Your task to perform on an android device: turn on data saver in the chrome app Image 0: 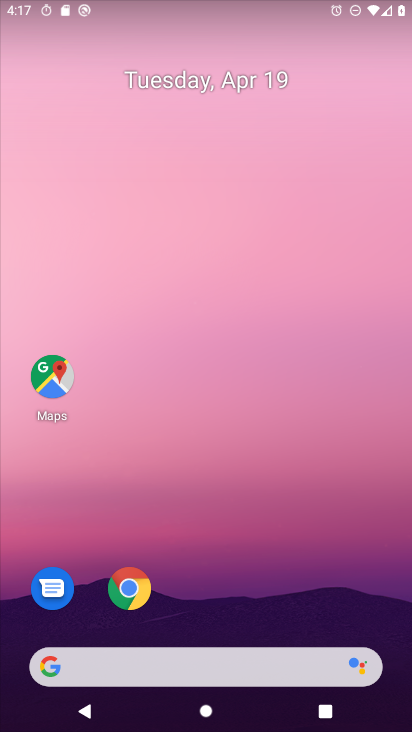
Step 0: click (139, 587)
Your task to perform on an android device: turn on data saver in the chrome app Image 1: 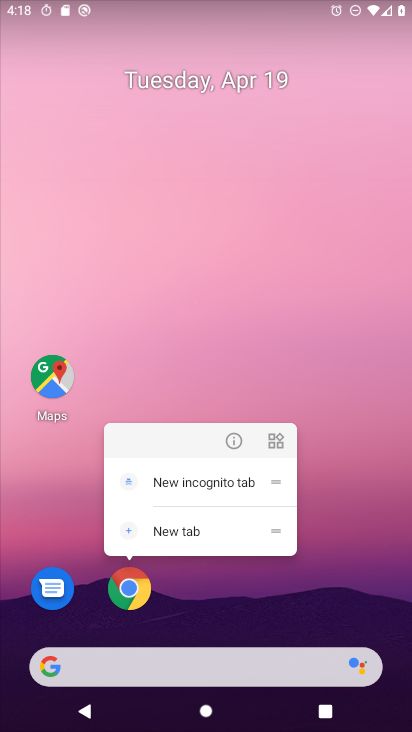
Step 1: click (130, 588)
Your task to perform on an android device: turn on data saver in the chrome app Image 2: 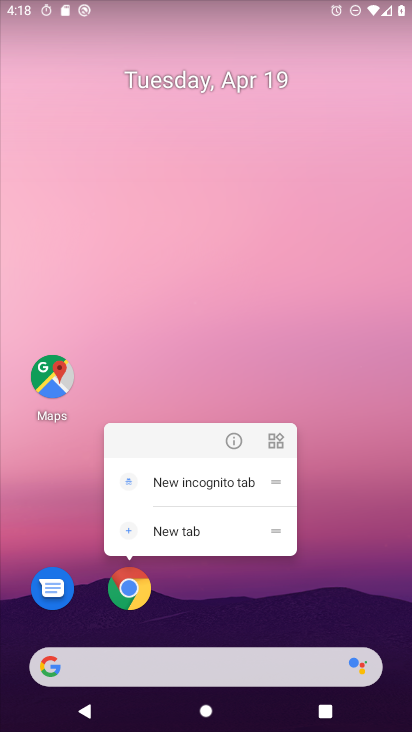
Step 2: click (130, 584)
Your task to perform on an android device: turn on data saver in the chrome app Image 3: 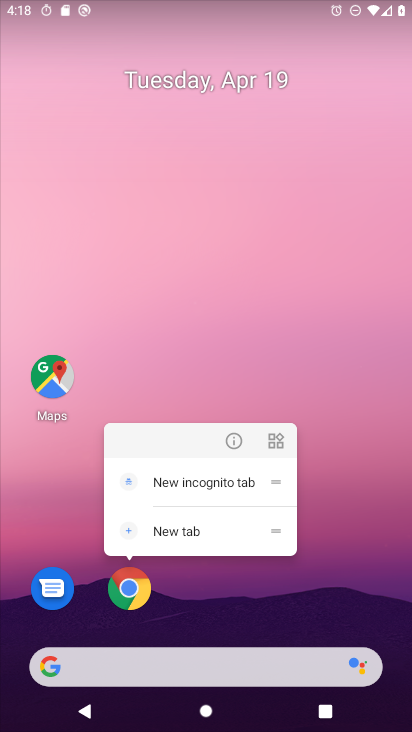
Step 3: click (130, 584)
Your task to perform on an android device: turn on data saver in the chrome app Image 4: 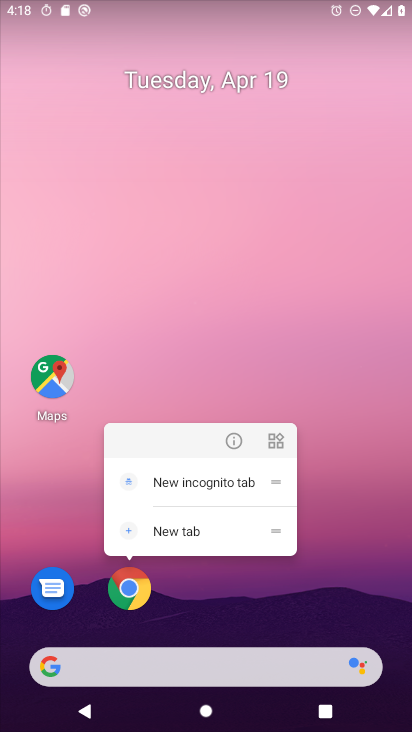
Step 4: click (130, 584)
Your task to perform on an android device: turn on data saver in the chrome app Image 5: 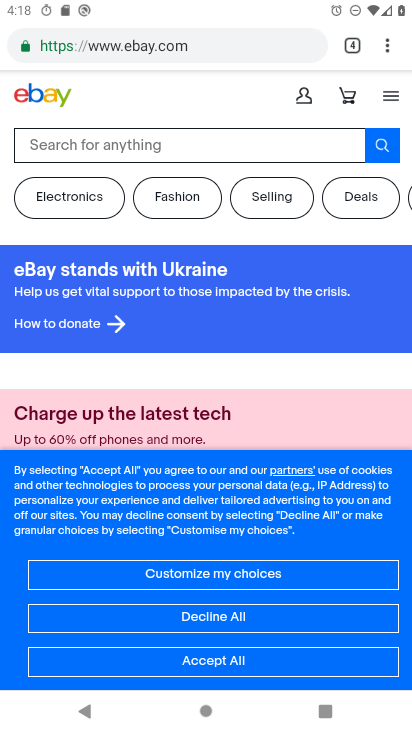
Step 5: click (383, 46)
Your task to perform on an android device: turn on data saver in the chrome app Image 6: 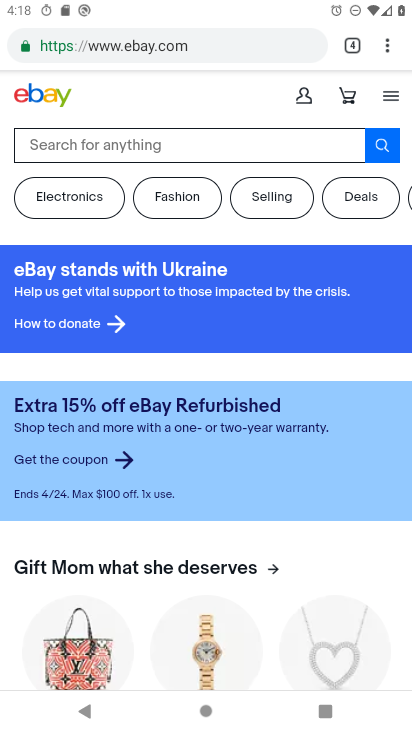
Step 6: click (381, 47)
Your task to perform on an android device: turn on data saver in the chrome app Image 7: 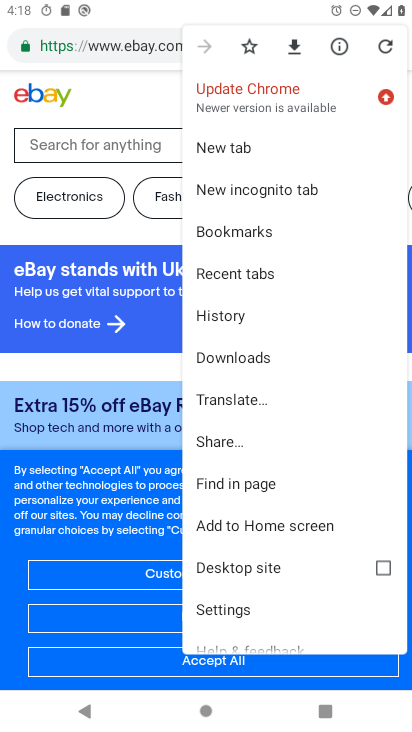
Step 7: click (247, 606)
Your task to perform on an android device: turn on data saver in the chrome app Image 8: 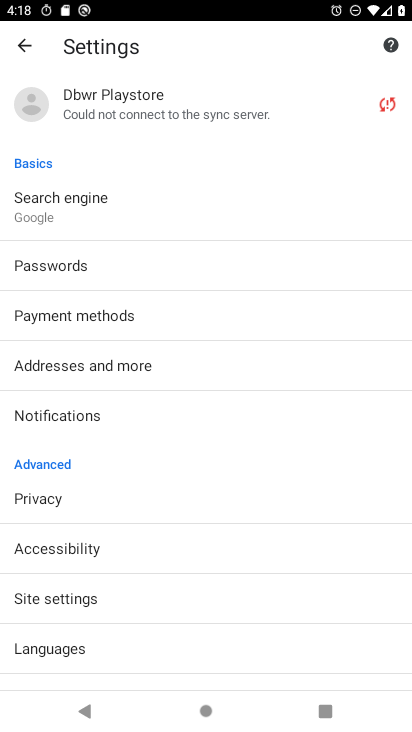
Step 8: drag from (124, 633) to (138, 387)
Your task to perform on an android device: turn on data saver in the chrome app Image 9: 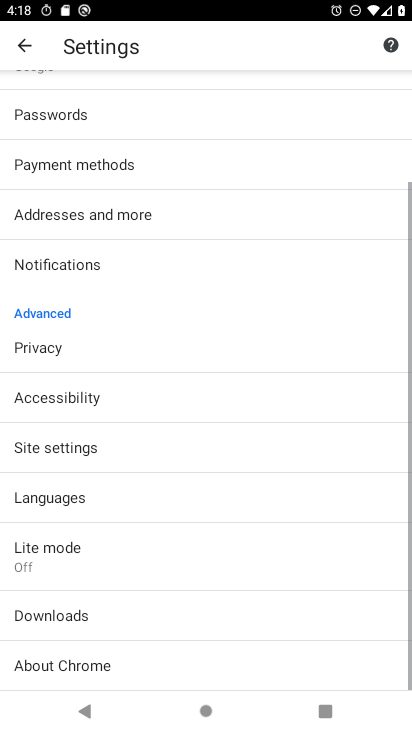
Step 9: click (85, 557)
Your task to perform on an android device: turn on data saver in the chrome app Image 10: 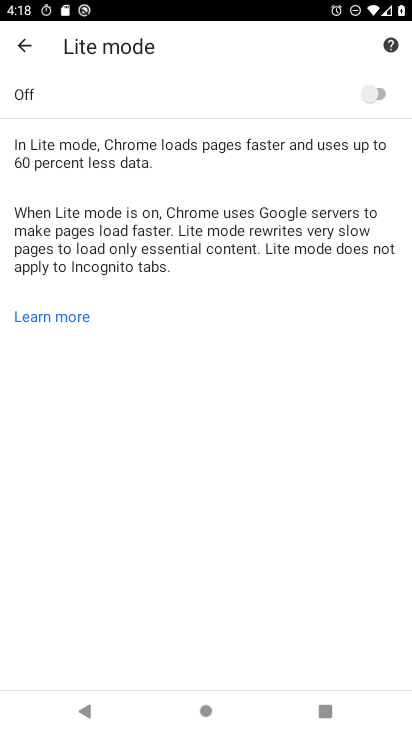
Step 10: click (372, 94)
Your task to perform on an android device: turn on data saver in the chrome app Image 11: 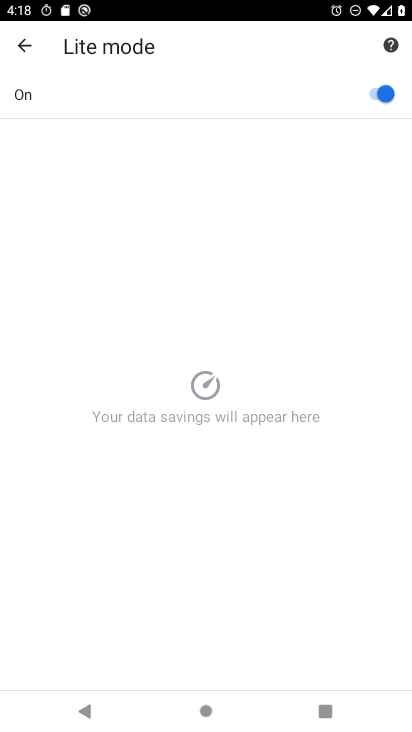
Step 11: task complete